Your task to perform on an android device: Go to CNN.com Image 0: 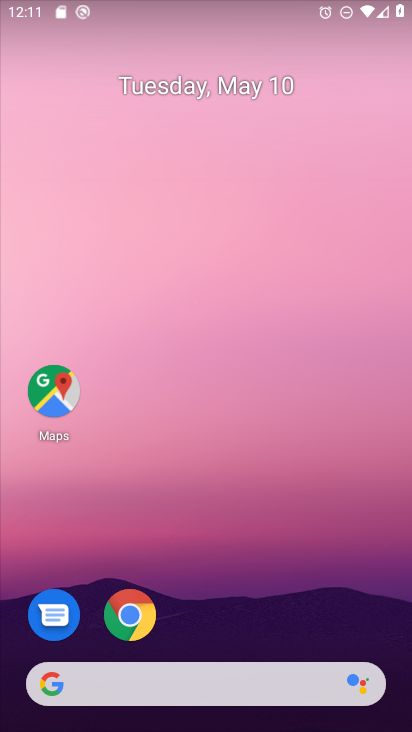
Step 0: drag from (189, 708) to (396, 113)
Your task to perform on an android device: Go to CNN.com Image 1: 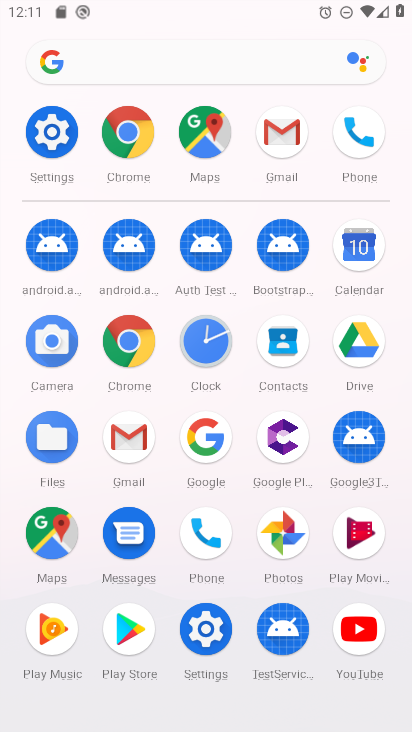
Step 1: click (127, 155)
Your task to perform on an android device: Go to CNN.com Image 2: 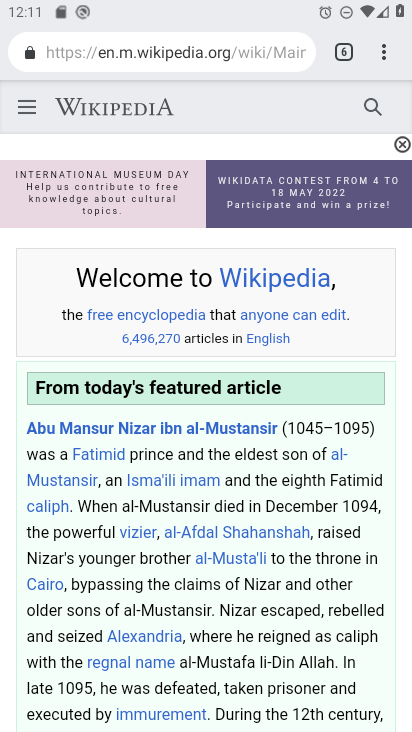
Step 2: click (149, 65)
Your task to perform on an android device: Go to CNN.com Image 3: 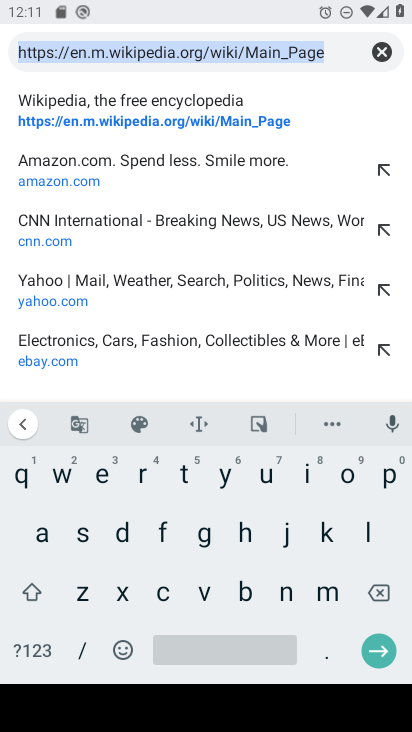
Step 3: click (66, 233)
Your task to perform on an android device: Go to CNN.com Image 4: 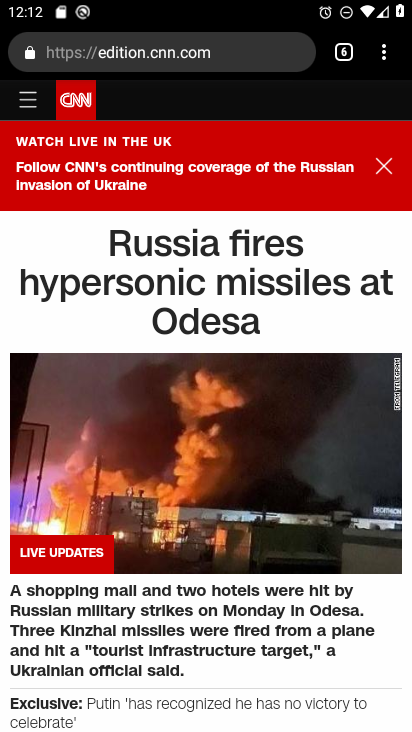
Step 4: task complete